Your task to perform on an android device: Go to Amazon Image 0: 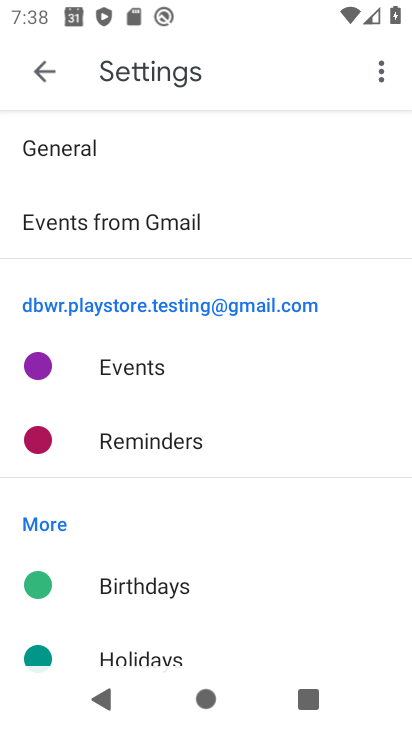
Step 0: press home button
Your task to perform on an android device: Go to Amazon Image 1: 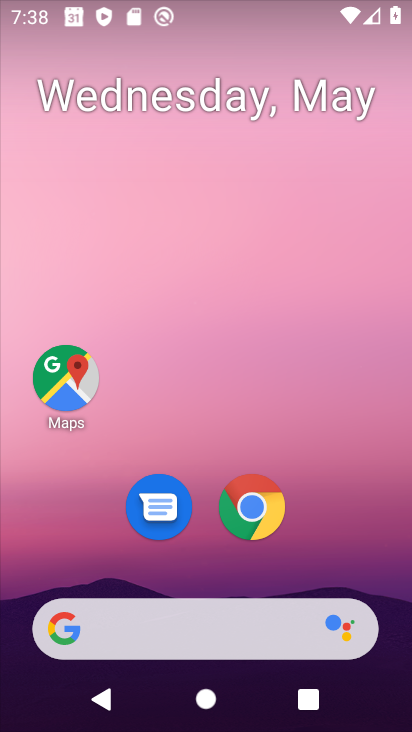
Step 1: click (239, 498)
Your task to perform on an android device: Go to Amazon Image 2: 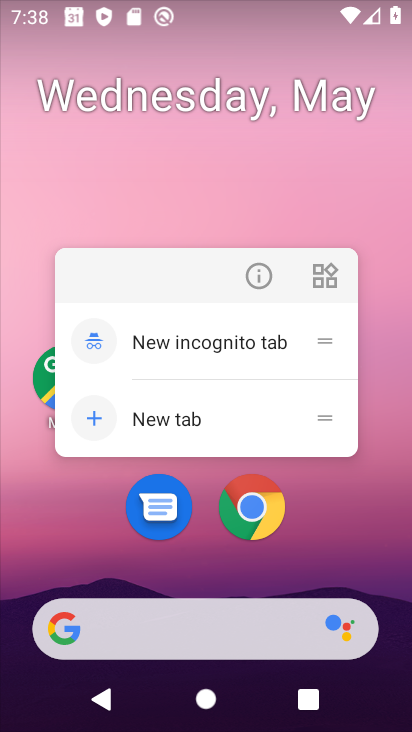
Step 2: click (239, 498)
Your task to perform on an android device: Go to Amazon Image 3: 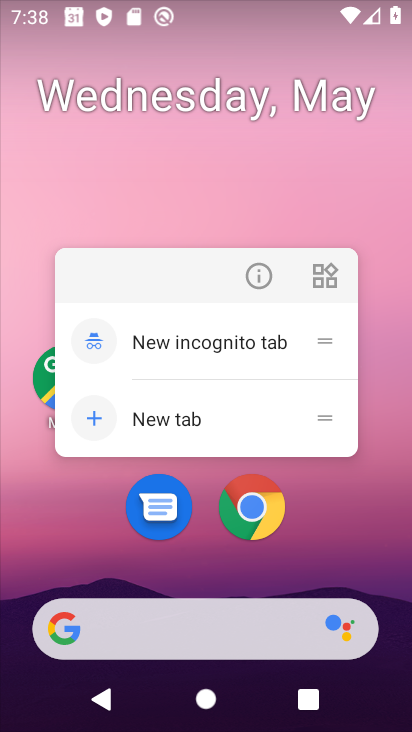
Step 3: click (255, 499)
Your task to perform on an android device: Go to Amazon Image 4: 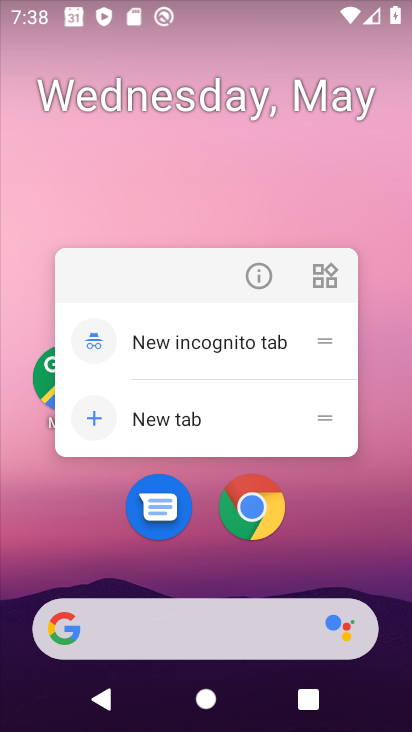
Step 4: click (256, 499)
Your task to perform on an android device: Go to Amazon Image 5: 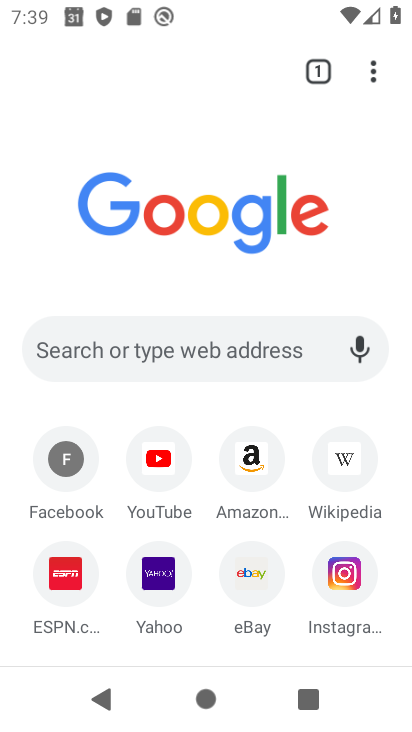
Step 5: click (246, 437)
Your task to perform on an android device: Go to Amazon Image 6: 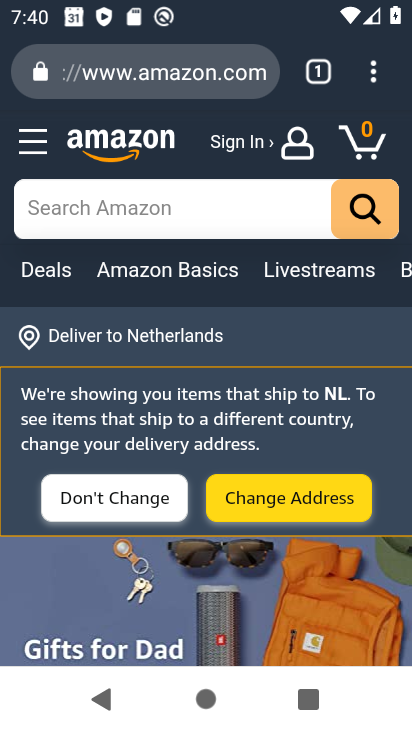
Step 6: task complete